Your task to perform on an android device: What's the weather going to be tomorrow? Image 0: 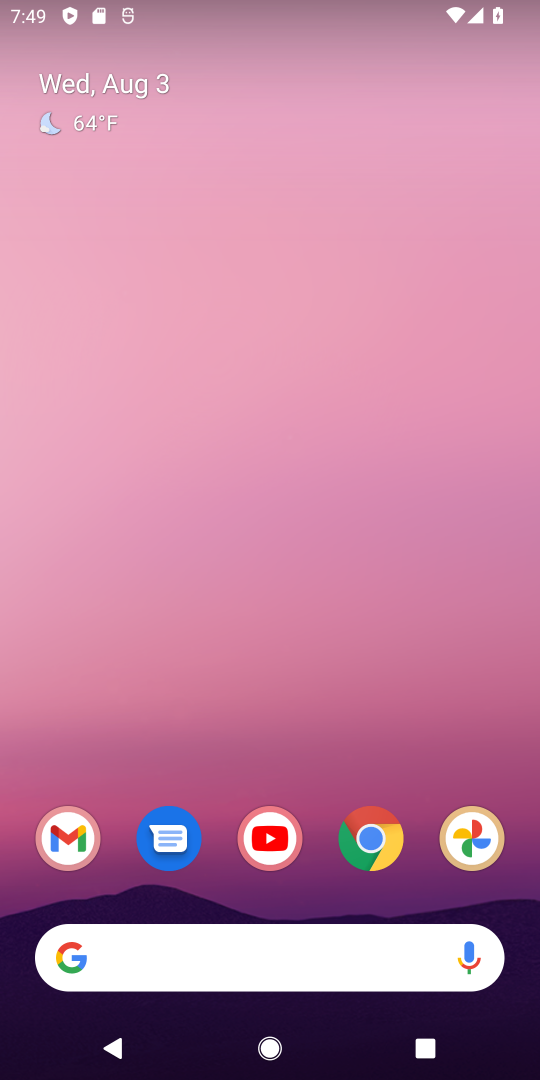
Step 0: click (185, 947)
Your task to perform on an android device: What's the weather going to be tomorrow? Image 1: 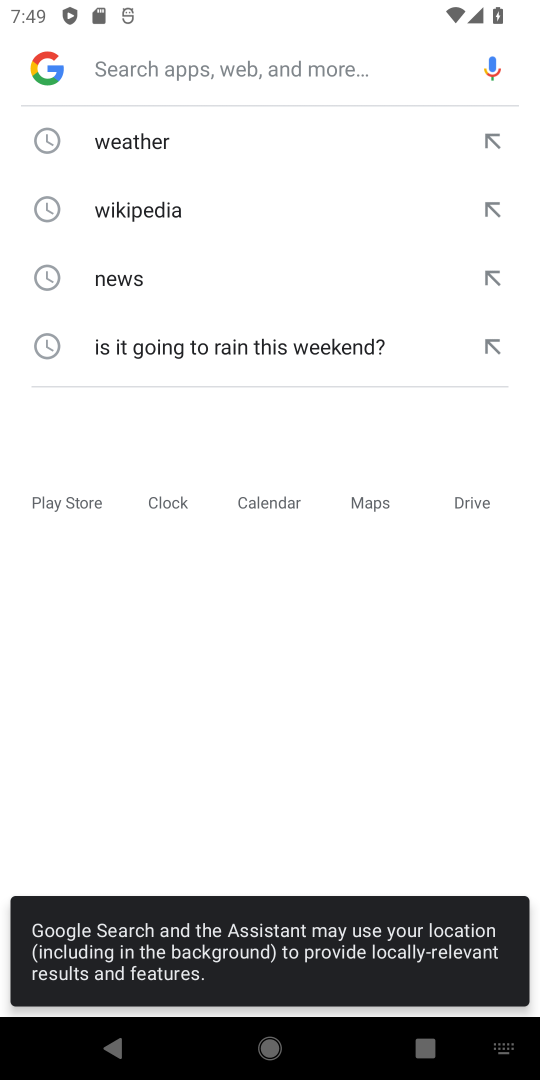
Step 1: click (124, 142)
Your task to perform on an android device: What's the weather going to be tomorrow? Image 2: 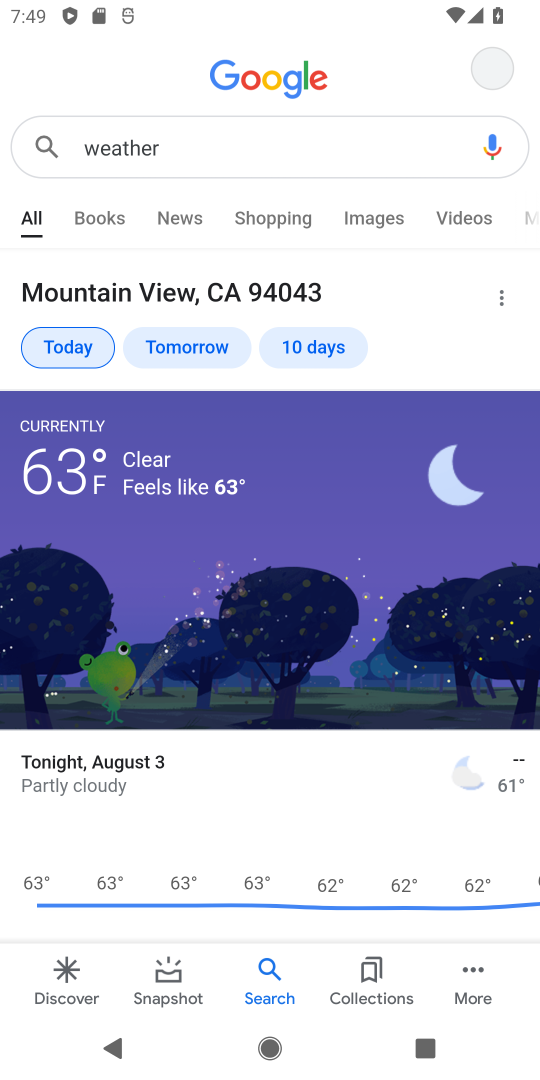
Step 2: click (160, 339)
Your task to perform on an android device: What's the weather going to be tomorrow? Image 3: 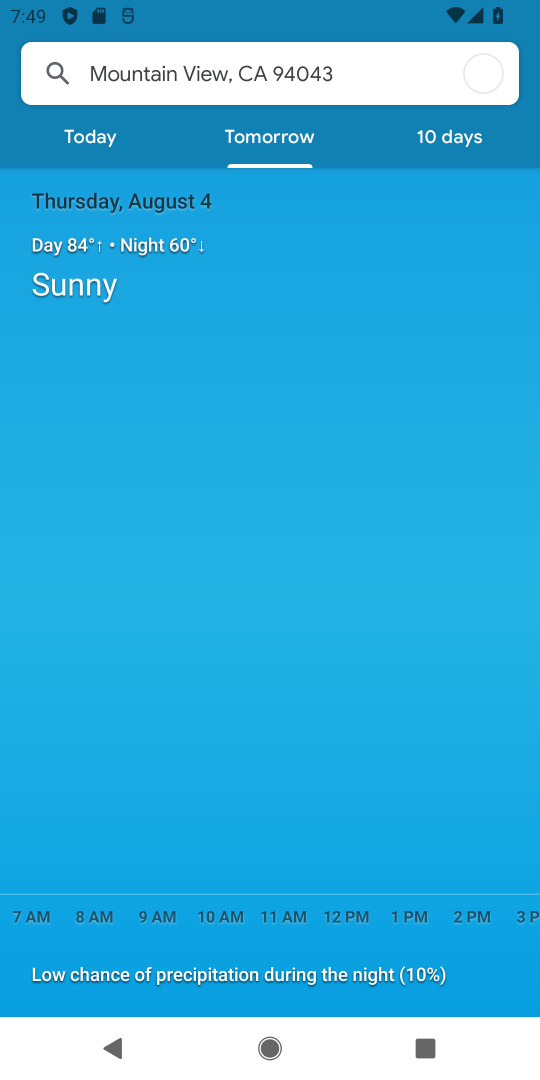
Step 3: task complete